Your task to perform on an android device: delete the emails in spam in the gmail app Image 0: 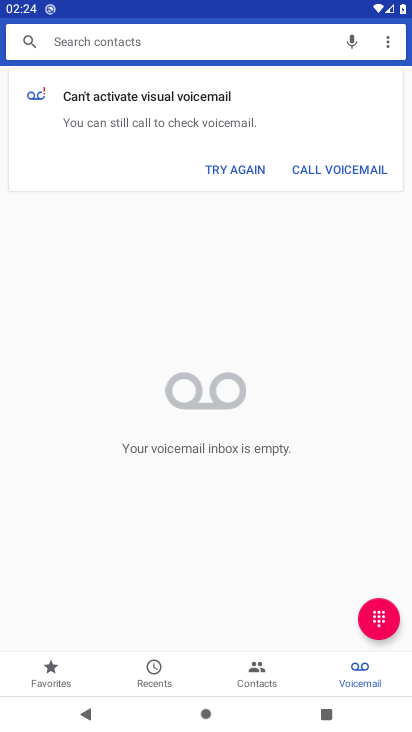
Step 0: press home button
Your task to perform on an android device: delete the emails in spam in the gmail app Image 1: 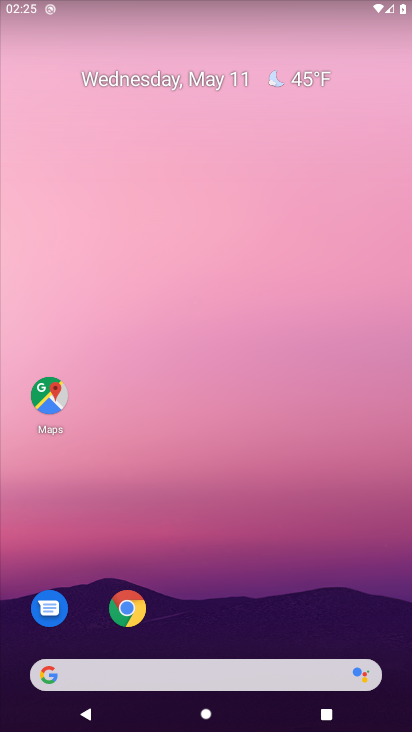
Step 1: drag from (213, 635) to (199, 6)
Your task to perform on an android device: delete the emails in spam in the gmail app Image 2: 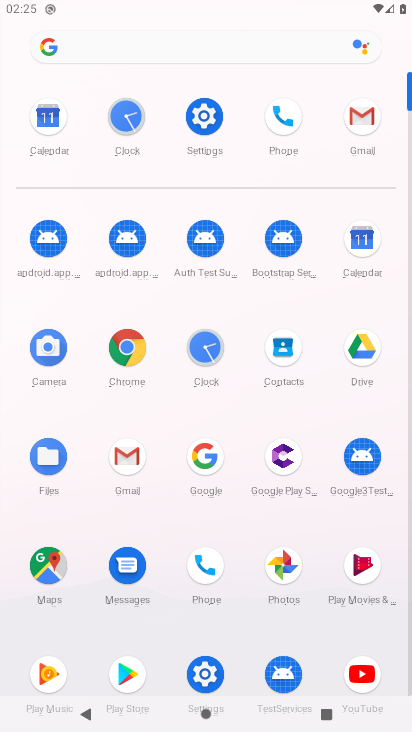
Step 2: click (129, 453)
Your task to perform on an android device: delete the emails in spam in the gmail app Image 3: 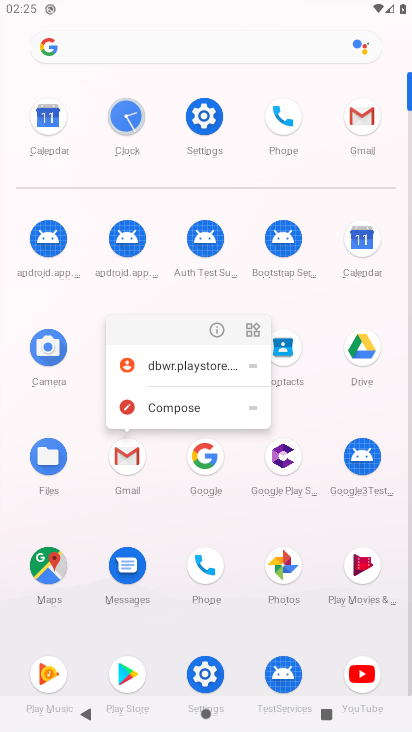
Step 3: click (129, 457)
Your task to perform on an android device: delete the emails in spam in the gmail app Image 4: 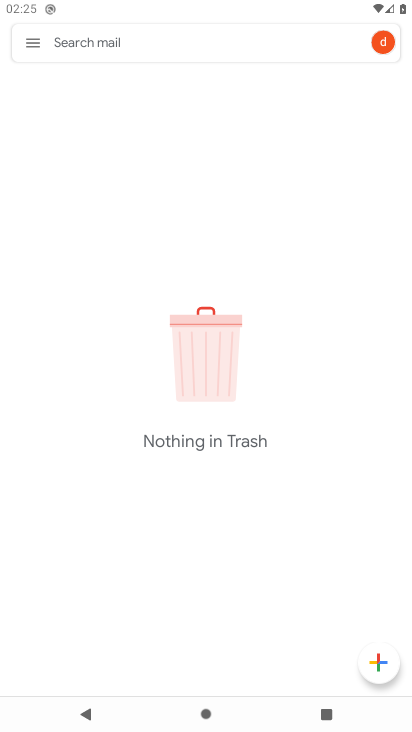
Step 4: click (32, 41)
Your task to perform on an android device: delete the emails in spam in the gmail app Image 5: 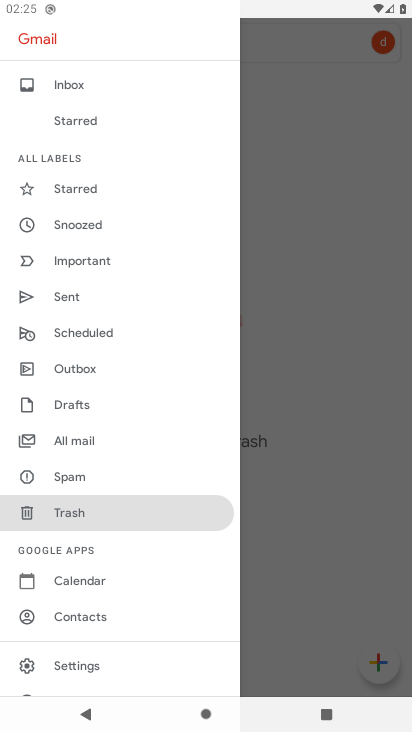
Step 5: click (92, 439)
Your task to perform on an android device: delete the emails in spam in the gmail app Image 6: 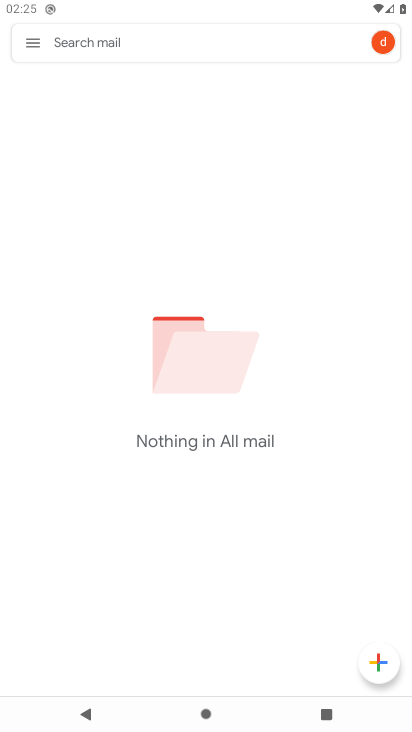
Step 6: task complete